Your task to perform on an android device: When is my next meeting? Image 0: 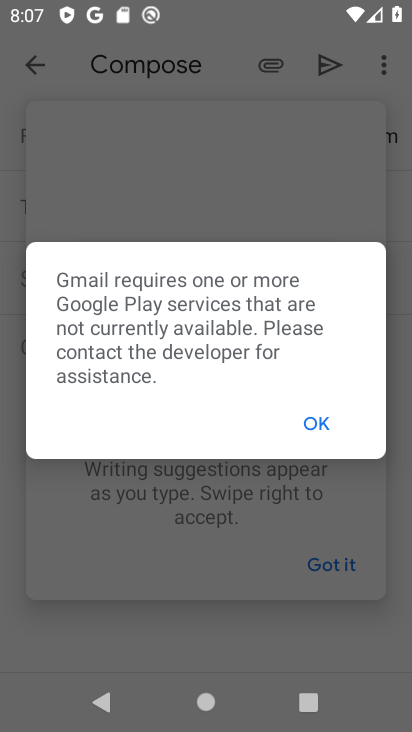
Step 0: press home button
Your task to perform on an android device: When is my next meeting? Image 1: 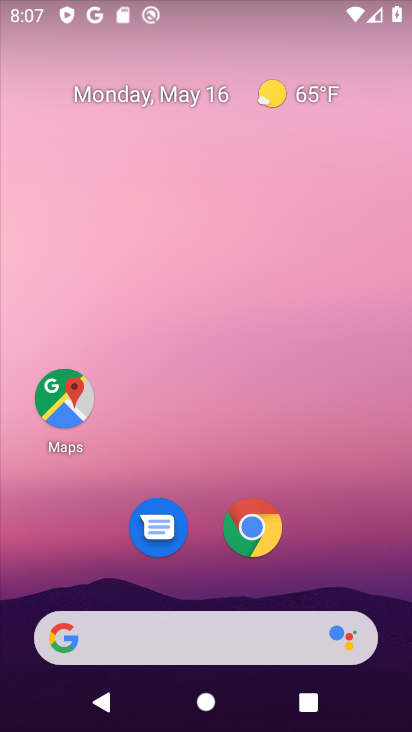
Step 1: drag from (307, 561) to (321, 206)
Your task to perform on an android device: When is my next meeting? Image 2: 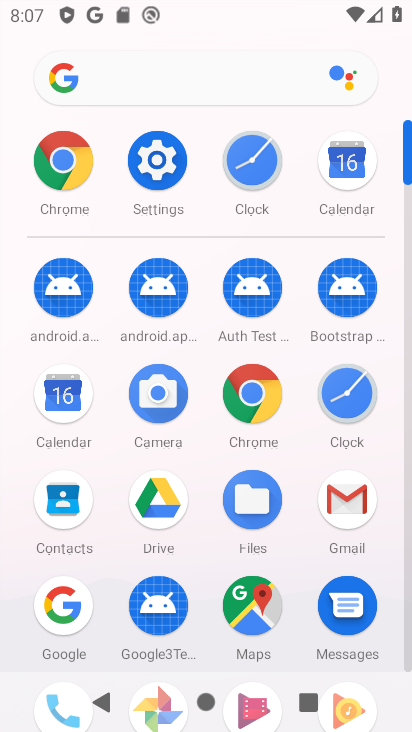
Step 2: click (68, 396)
Your task to perform on an android device: When is my next meeting? Image 3: 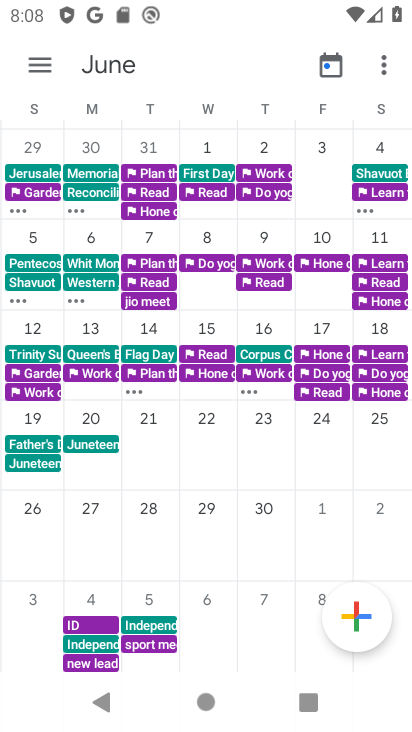
Step 3: drag from (26, 318) to (398, 397)
Your task to perform on an android device: When is my next meeting? Image 4: 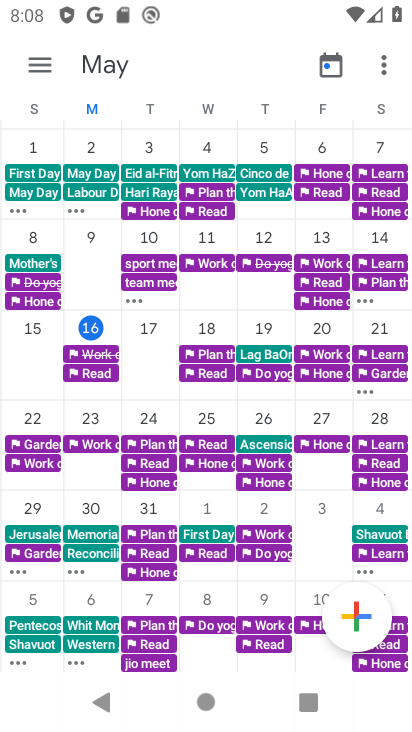
Step 4: click (157, 330)
Your task to perform on an android device: When is my next meeting? Image 5: 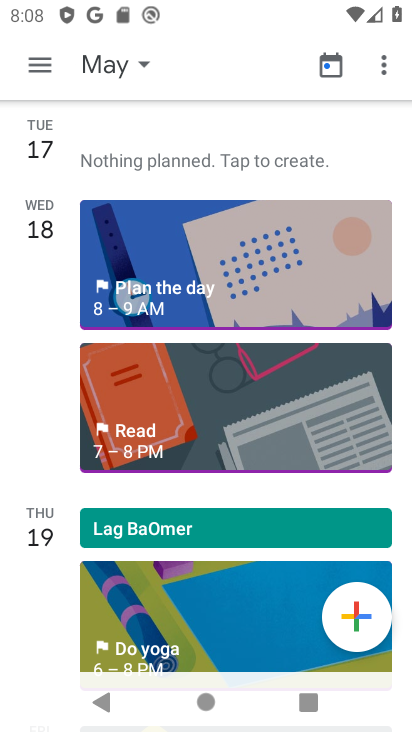
Step 5: press back button
Your task to perform on an android device: When is my next meeting? Image 6: 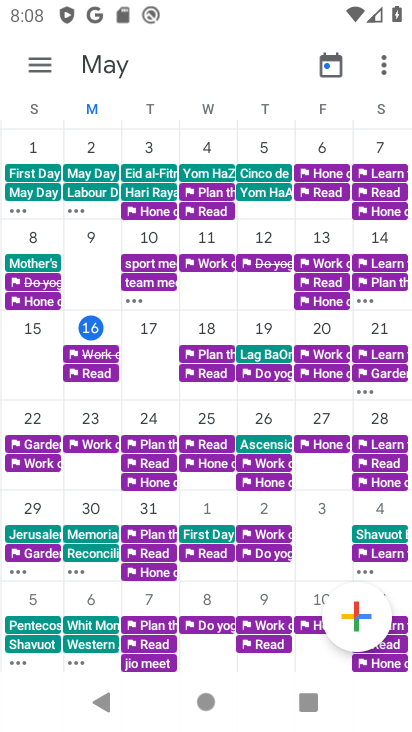
Step 6: click (211, 336)
Your task to perform on an android device: When is my next meeting? Image 7: 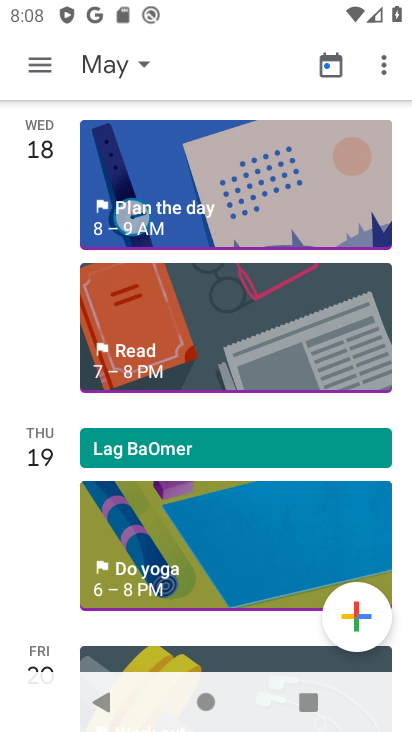
Step 7: task complete